Your task to perform on an android device: What's on my calendar tomorrow? Image 0: 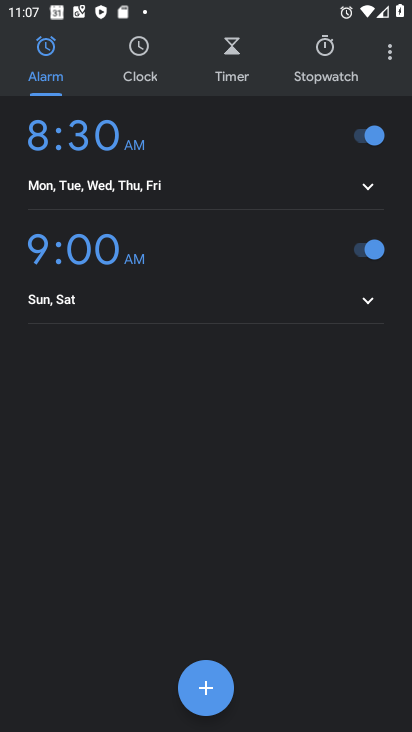
Step 0: press home button
Your task to perform on an android device: What's on my calendar tomorrow? Image 1: 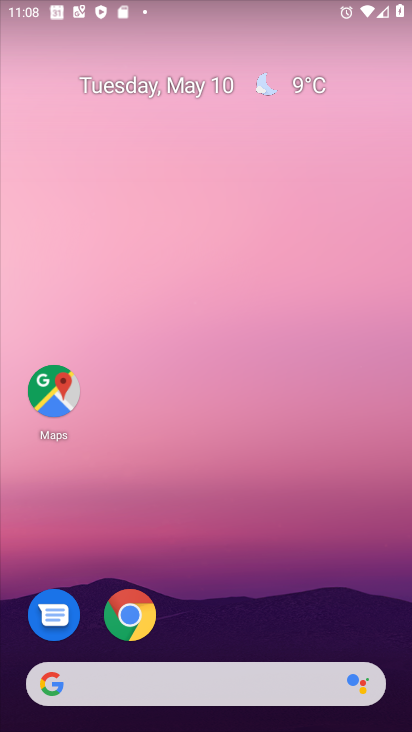
Step 1: drag from (212, 637) to (228, 10)
Your task to perform on an android device: What's on my calendar tomorrow? Image 2: 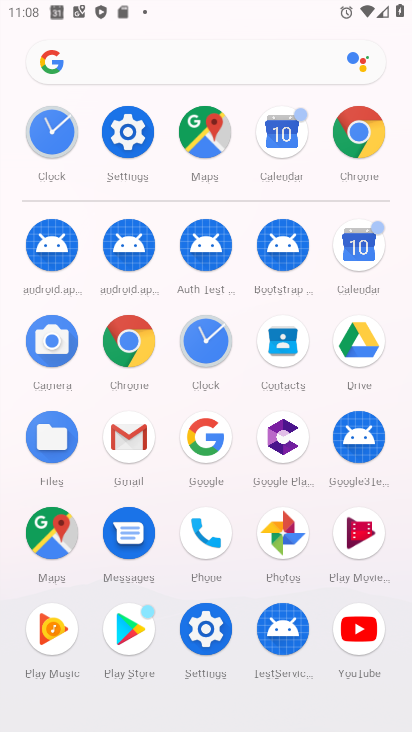
Step 2: click (358, 244)
Your task to perform on an android device: What's on my calendar tomorrow? Image 3: 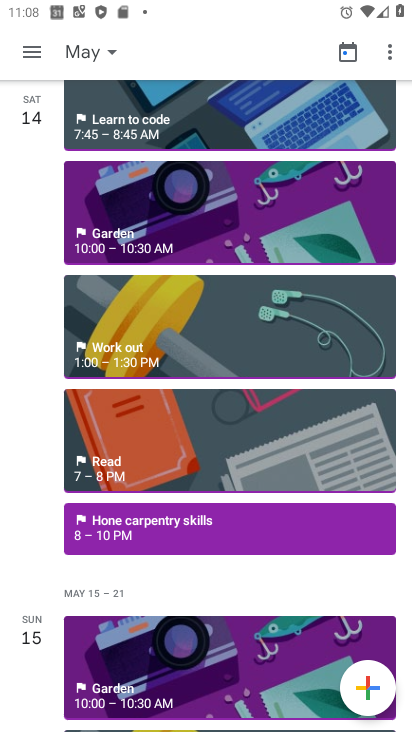
Step 3: drag from (40, 141) to (57, 664)
Your task to perform on an android device: What's on my calendar tomorrow? Image 4: 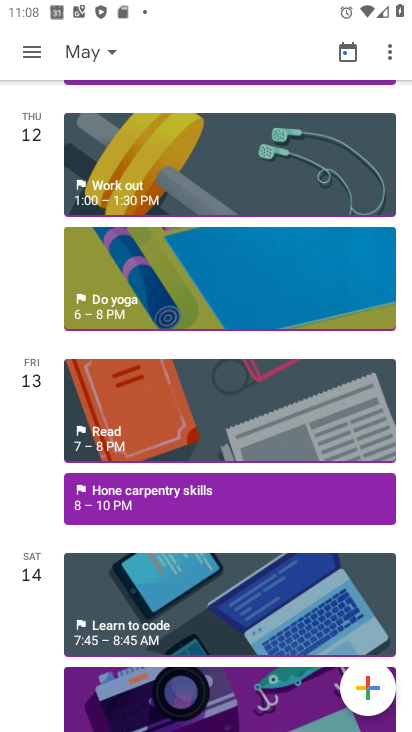
Step 4: drag from (42, 137) to (39, 660)
Your task to perform on an android device: What's on my calendar tomorrow? Image 5: 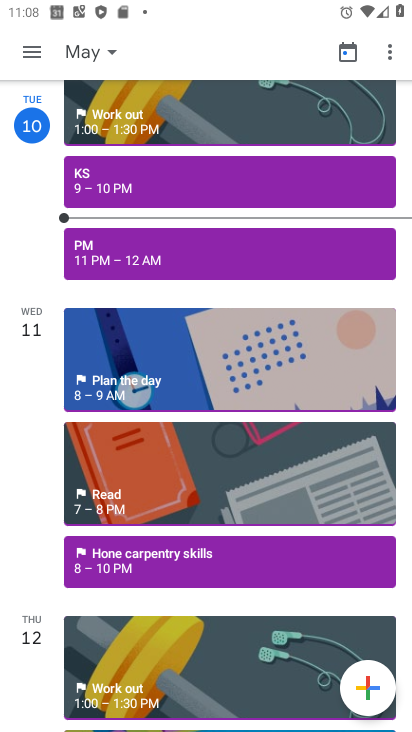
Step 5: click (44, 349)
Your task to perform on an android device: What's on my calendar tomorrow? Image 6: 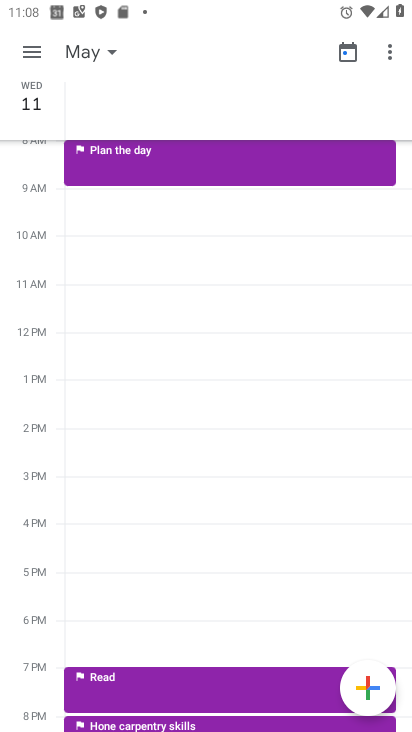
Step 6: drag from (40, 222) to (45, 621)
Your task to perform on an android device: What's on my calendar tomorrow? Image 7: 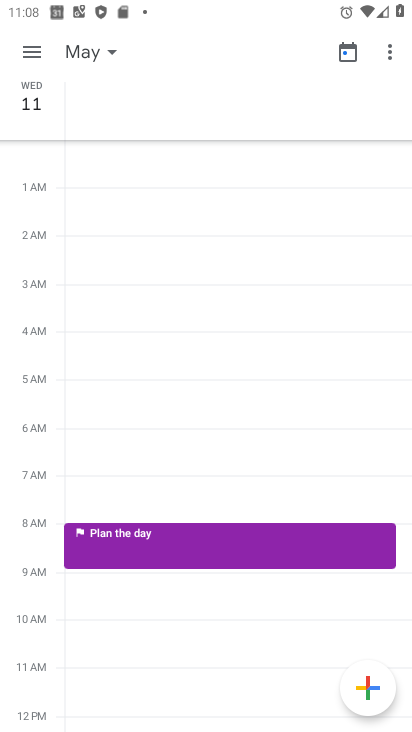
Step 7: drag from (40, 185) to (43, 631)
Your task to perform on an android device: What's on my calendar tomorrow? Image 8: 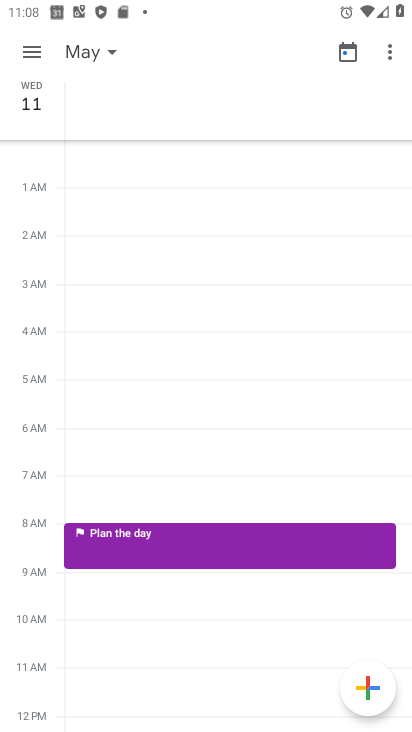
Step 8: drag from (36, 645) to (40, 226)
Your task to perform on an android device: What's on my calendar tomorrow? Image 9: 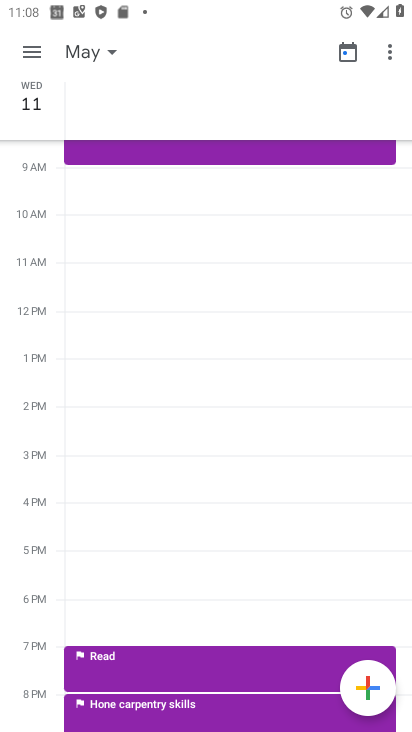
Step 9: click (39, 179)
Your task to perform on an android device: What's on my calendar tomorrow? Image 10: 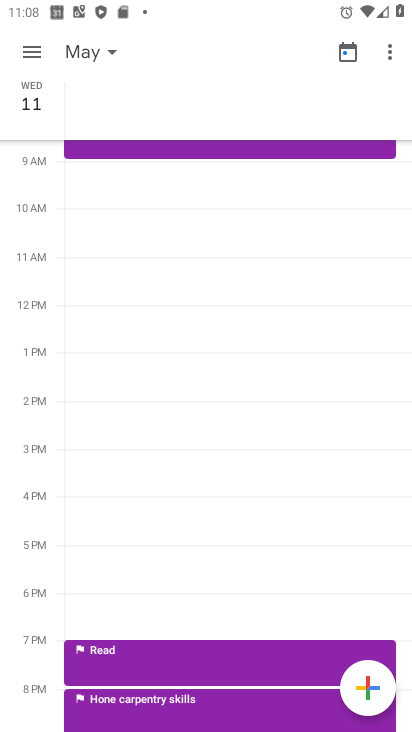
Step 10: task complete